Your task to perform on an android device: Open Google Chrome and open the bookmarks view Image 0: 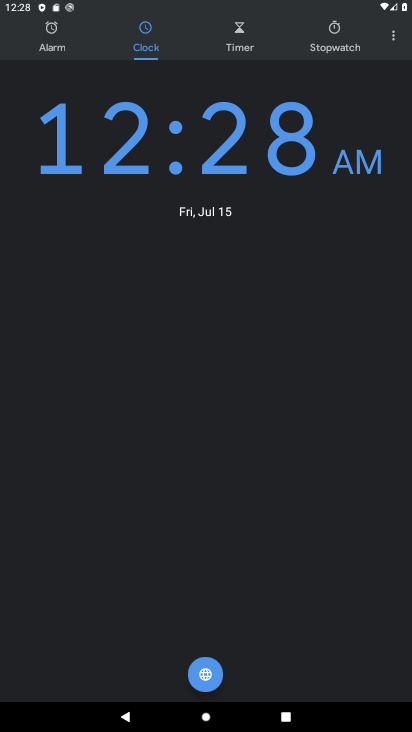
Step 0: press home button
Your task to perform on an android device: Open Google Chrome and open the bookmarks view Image 1: 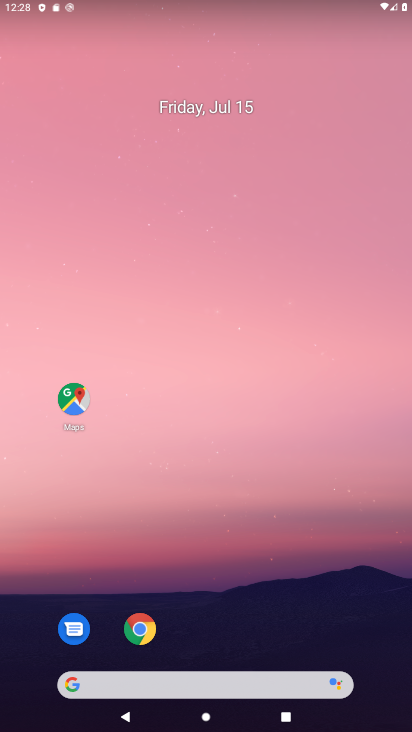
Step 1: drag from (229, 418) to (185, 93)
Your task to perform on an android device: Open Google Chrome and open the bookmarks view Image 2: 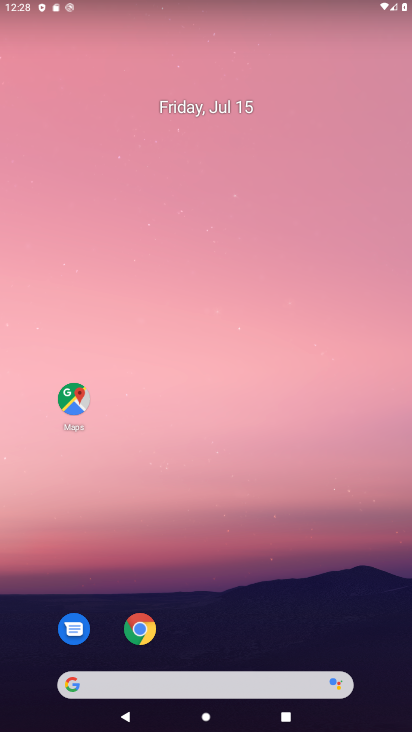
Step 2: drag from (248, 521) to (234, 16)
Your task to perform on an android device: Open Google Chrome and open the bookmarks view Image 3: 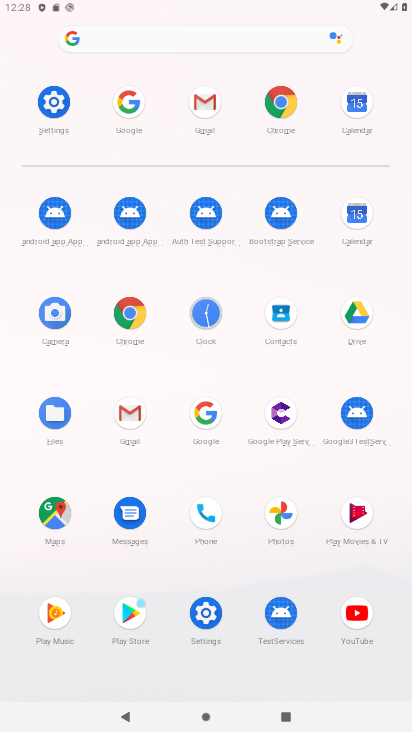
Step 3: click (131, 316)
Your task to perform on an android device: Open Google Chrome and open the bookmarks view Image 4: 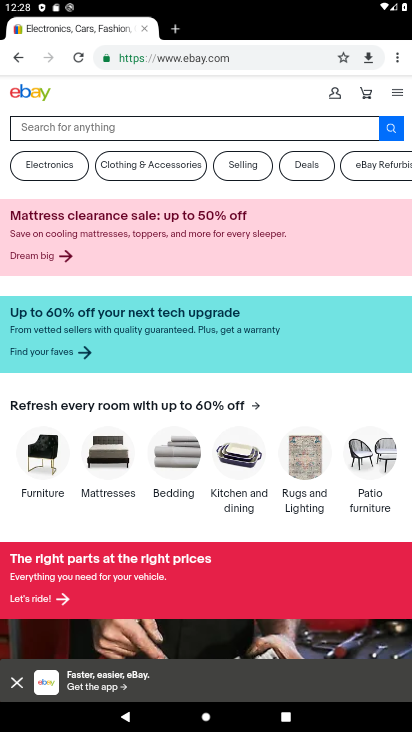
Step 4: task complete